Your task to perform on an android device: Go to ESPN.com Image 0: 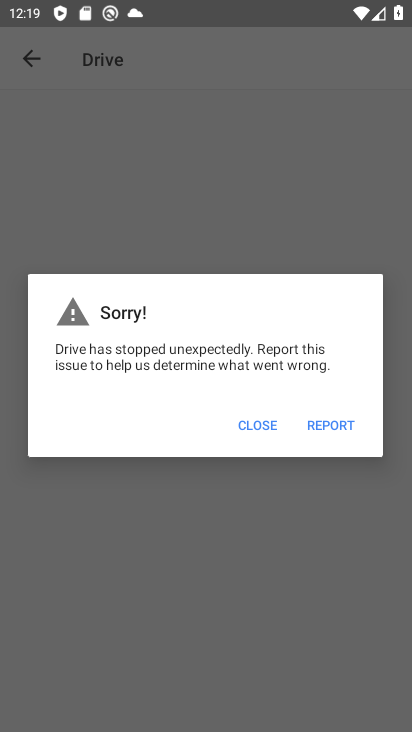
Step 0: press home button
Your task to perform on an android device: Go to ESPN.com Image 1: 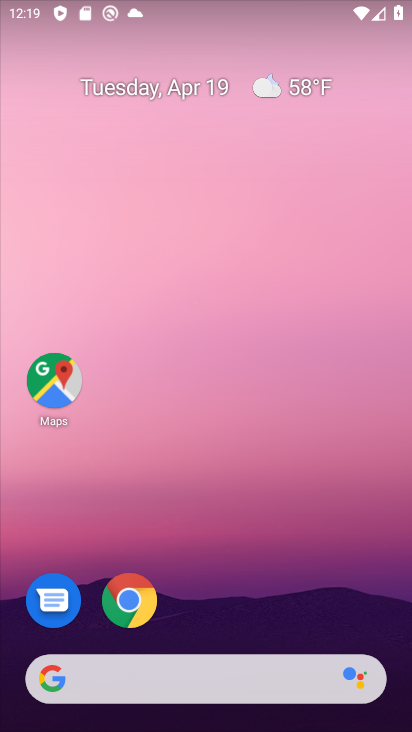
Step 1: drag from (226, 695) to (316, 36)
Your task to perform on an android device: Go to ESPN.com Image 2: 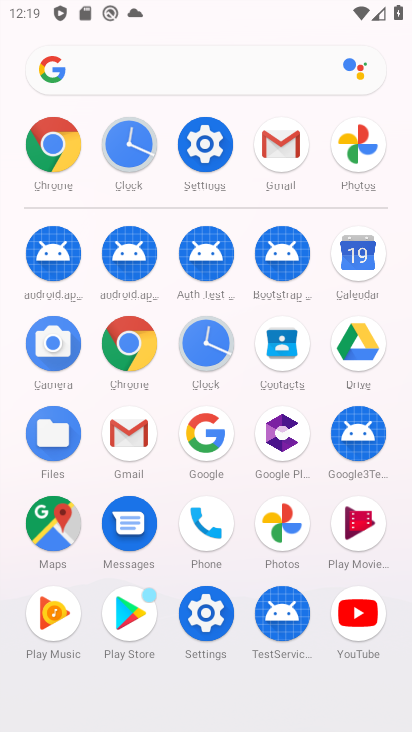
Step 2: click (62, 157)
Your task to perform on an android device: Go to ESPN.com Image 3: 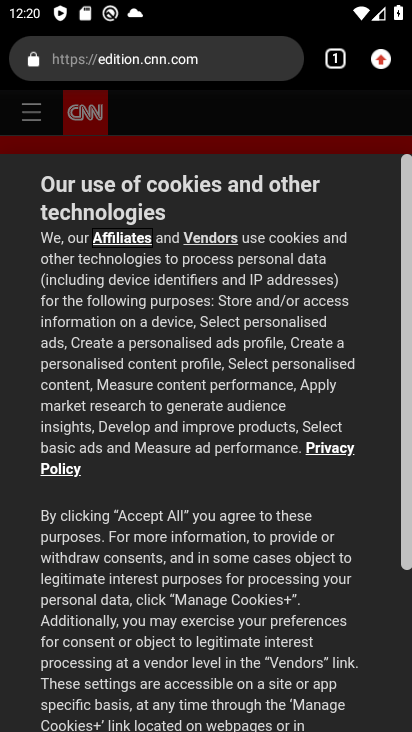
Step 3: click (219, 68)
Your task to perform on an android device: Go to ESPN.com Image 4: 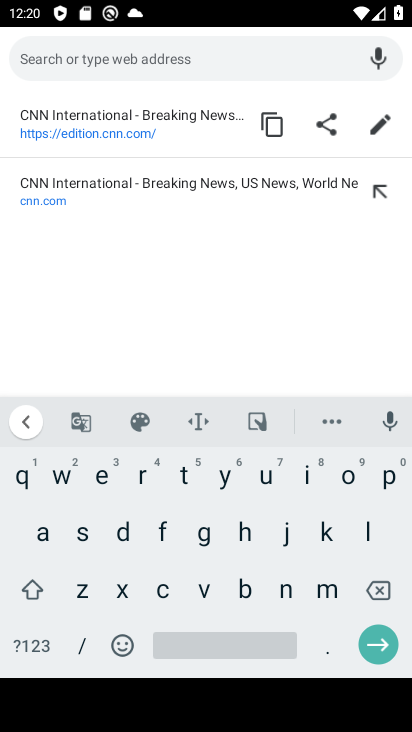
Step 4: click (103, 484)
Your task to perform on an android device: Go to ESPN.com Image 5: 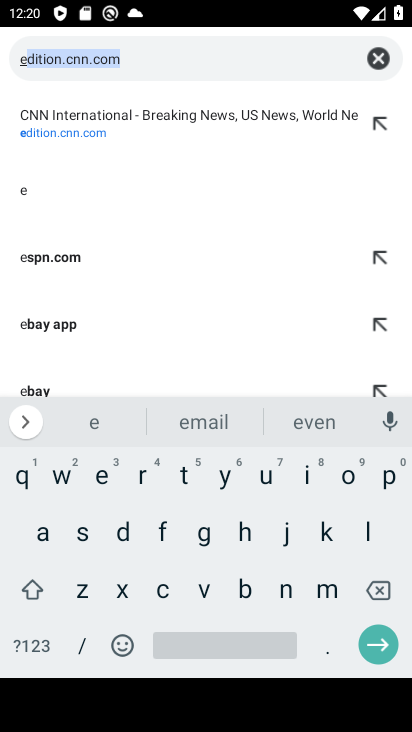
Step 5: click (75, 533)
Your task to perform on an android device: Go to ESPN.com Image 6: 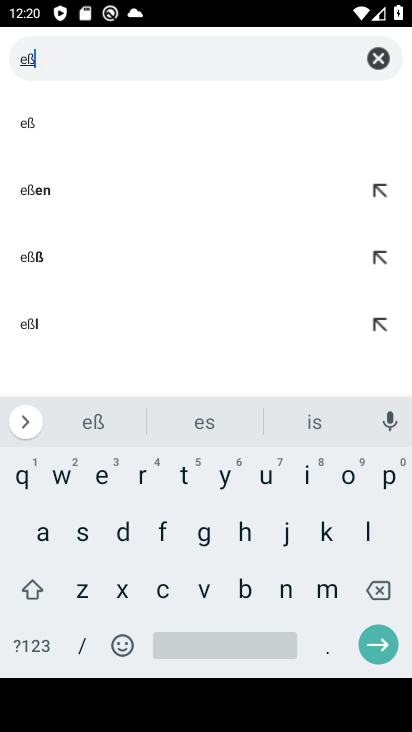
Step 6: click (378, 596)
Your task to perform on an android device: Go to ESPN.com Image 7: 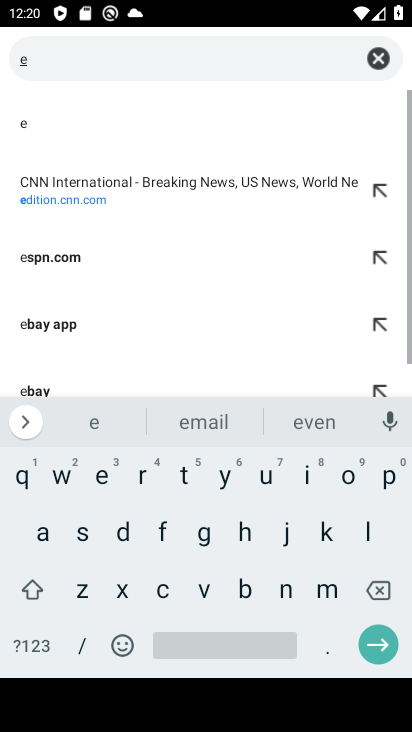
Step 7: click (82, 542)
Your task to perform on an android device: Go to ESPN.com Image 8: 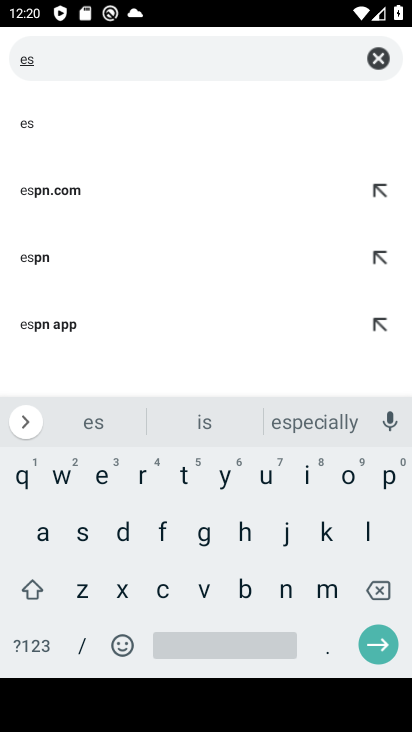
Step 8: click (54, 189)
Your task to perform on an android device: Go to ESPN.com Image 9: 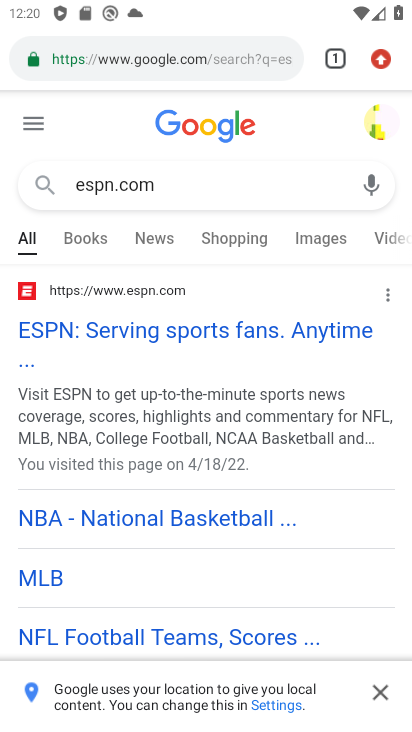
Step 9: click (76, 319)
Your task to perform on an android device: Go to ESPN.com Image 10: 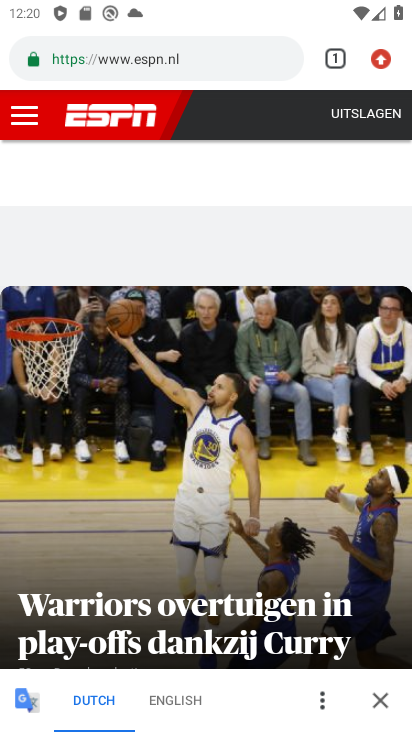
Step 10: task complete